Your task to perform on an android device: open app "Airtel Thanks" (install if not already installed) Image 0: 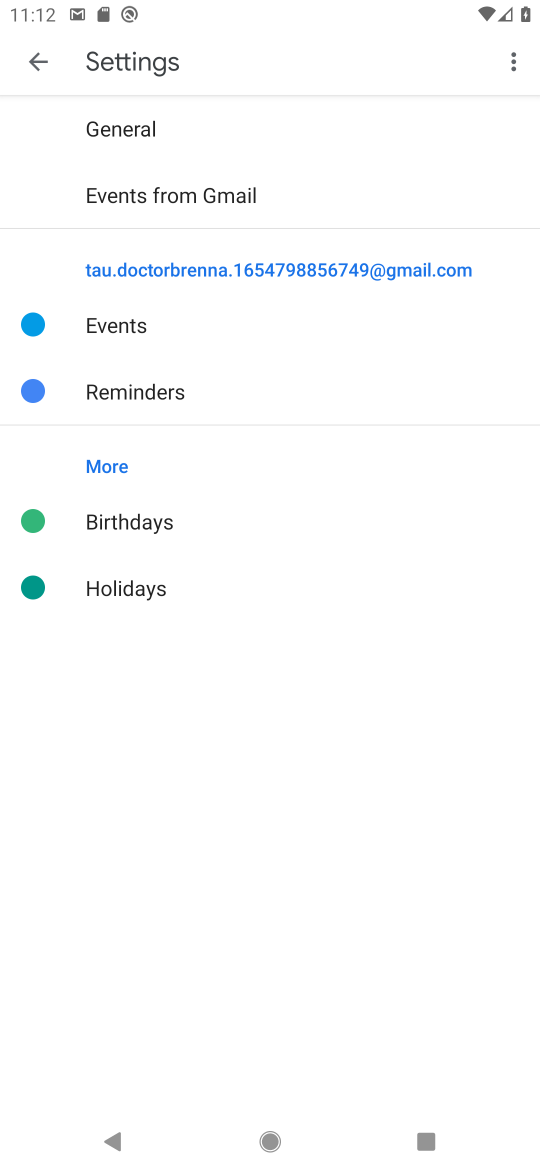
Step 0: press home button
Your task to perform on an android device: open app "Airtel Thanks" (install if not already installed) Image 1: 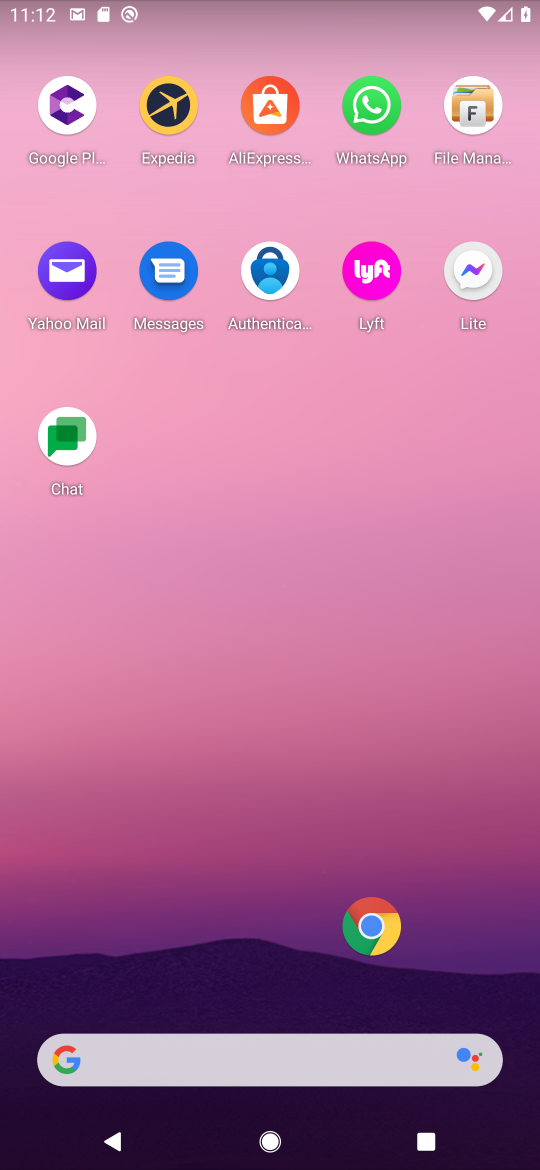
Step 1: drag from (294, 1018) to (495, 69)
Your task to perform on an android device: open app "Airtel Thanks" (install if not already installed) Image 2: 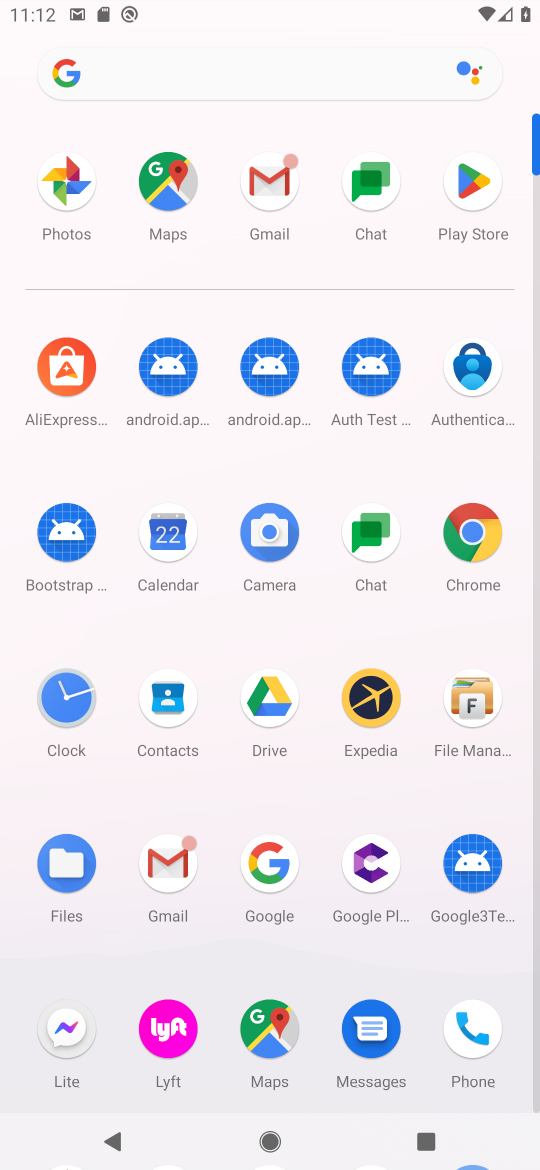
Step 2: click (467, 175)
Your task to perform on an android device: open app "Airtel Thanks" (install if not already installed) Image 3: 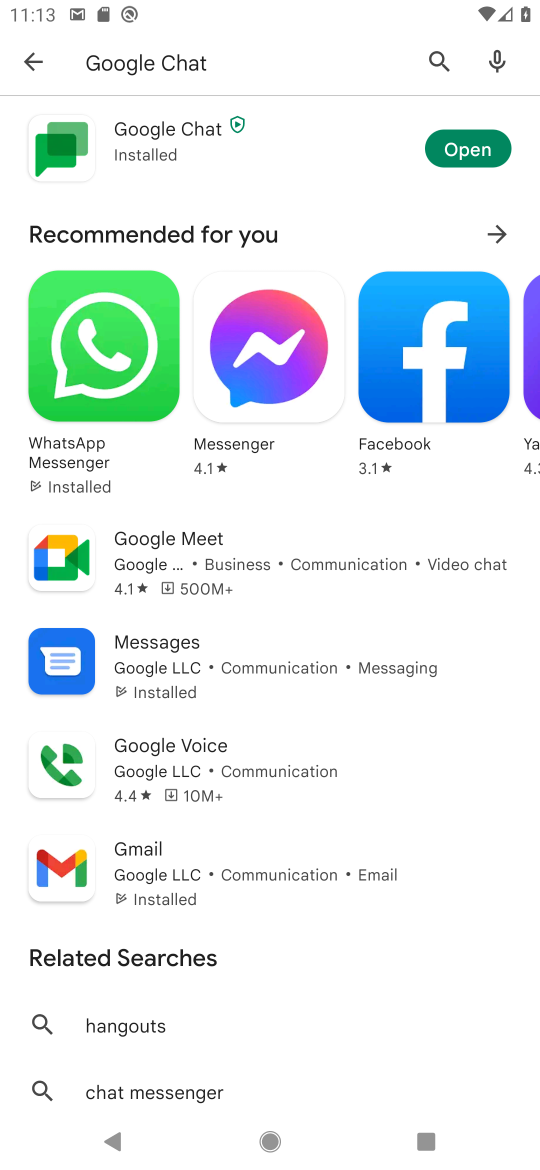
Step 3: press back button
Your task to perform on an android device: open app "Airtel Thanks" (install if not already installed) Image 4: 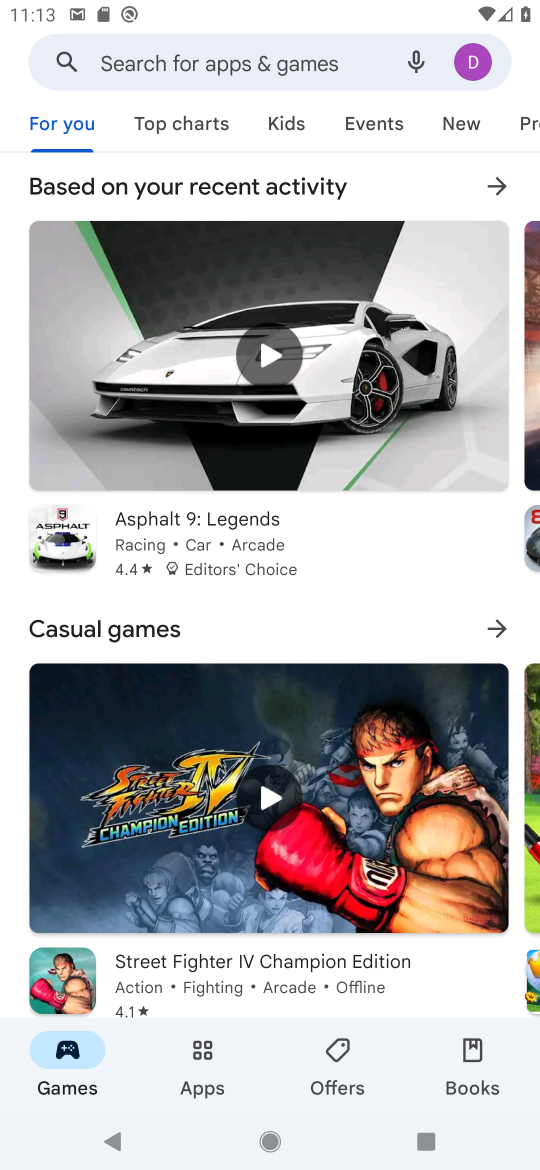
Step 4: click (265, 76)
Your task to perform on an android device: open app "Airtel Thanks" (install if not already installed) Image 5: 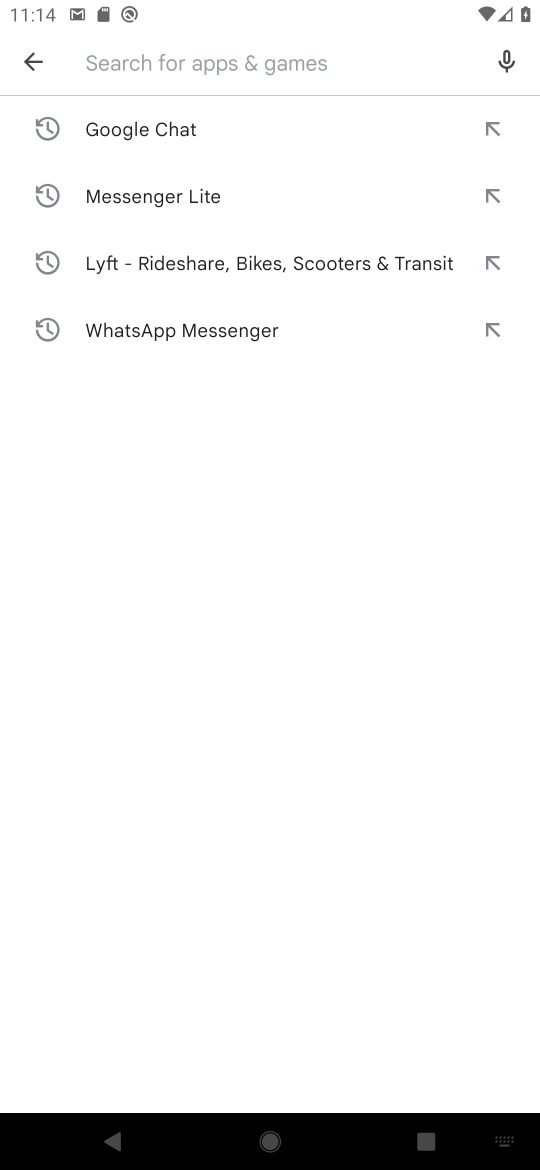
Step 5: type "Airtel Thanks"
Your task to perform on an android device: open app "Airtel Thanks" (install if not already installed) Image 6: 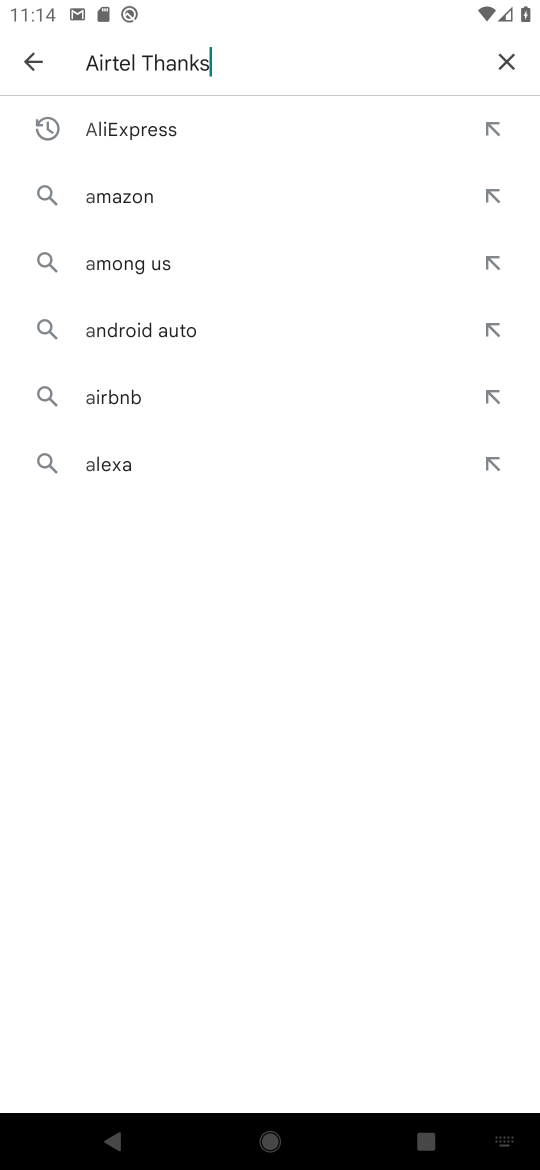
Step 6: press enter
Your task to perform on an android device: open app "Airtel Thanks" (install if not already installed) Image 7: 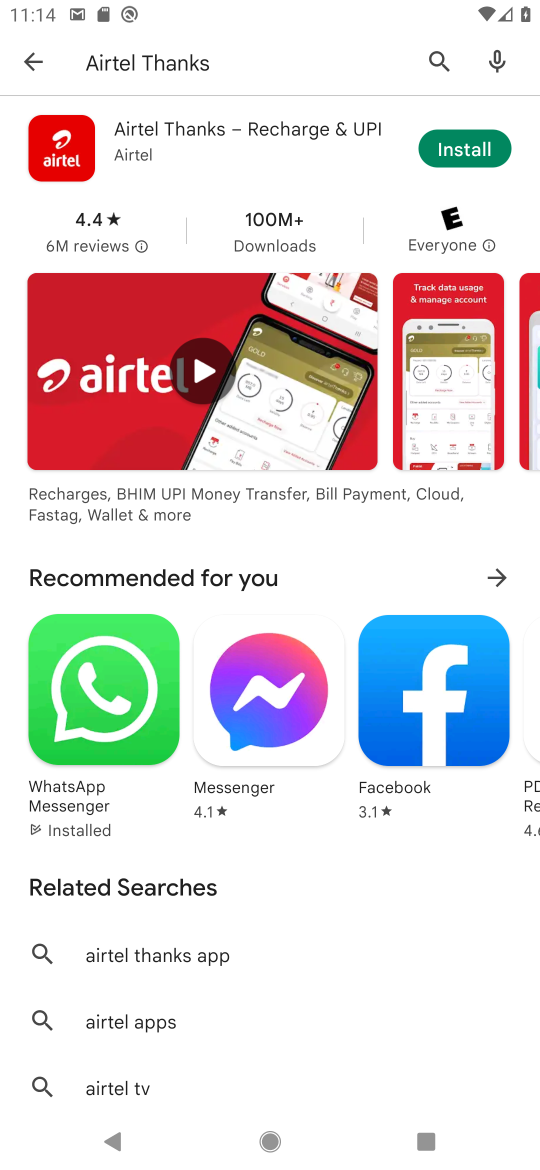
Step 7: click (480, 153)
Your task to perform on an android device: open app "Airtel Thanks" (install if not already installed) Image 8: 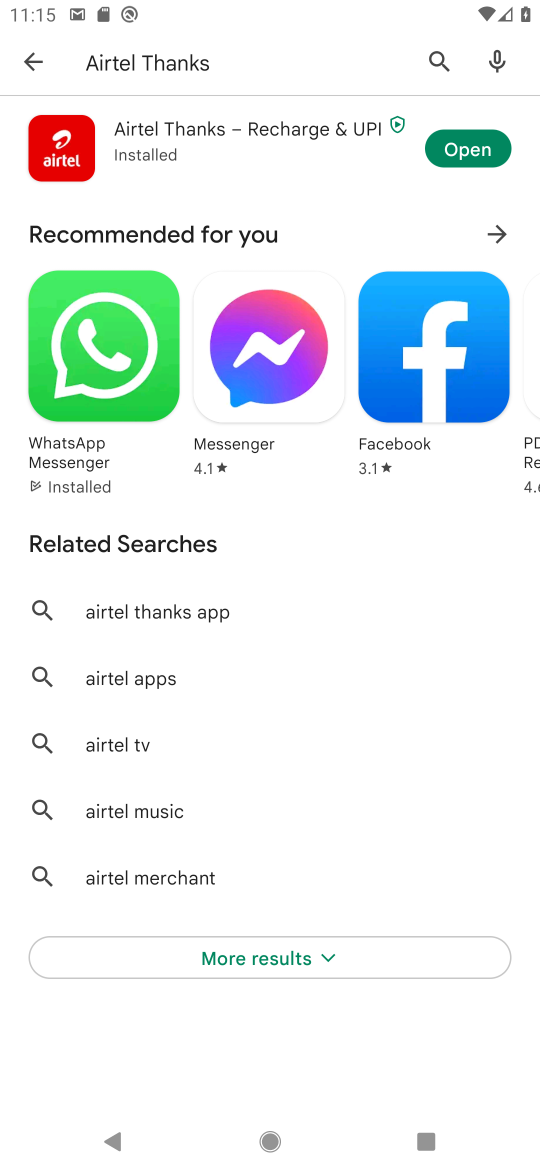
Step 8: click (482, 151)
Your task to perform on an android device: open app "Airtel Thanks" (install if not already installed) Image 9: 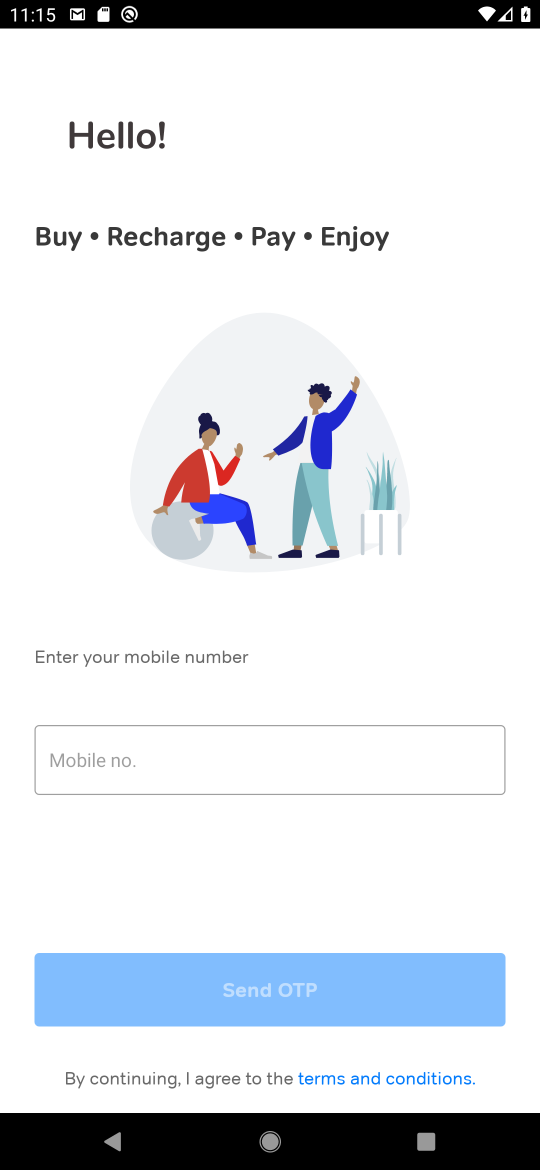
Step 9: task complete